Your task to perform on an android device: turn on airplane mode Image 0: 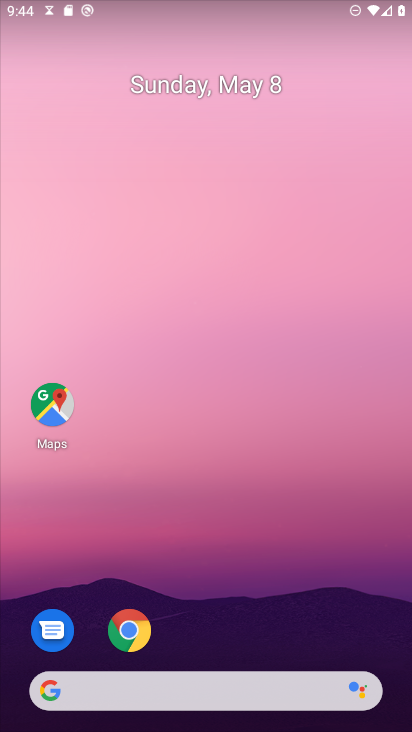
Step 0: drag from (207, 703) to (354, 217)
Your task to perform on an android device: turn on airplane mode Image 1: 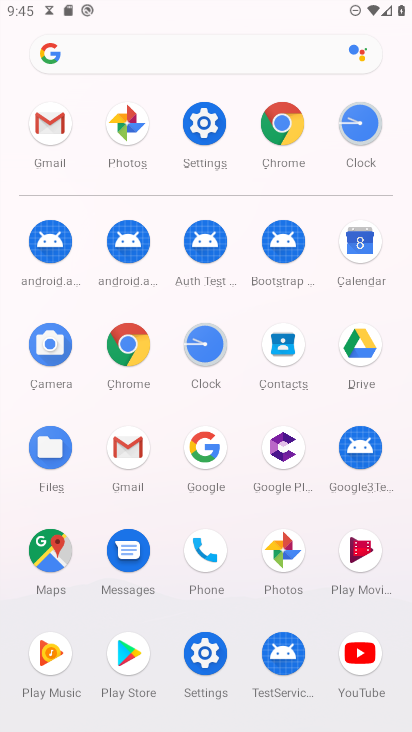
Step 1: click (199, 128)
Your task to perform on an android device: turn on airplane mode Image 2: 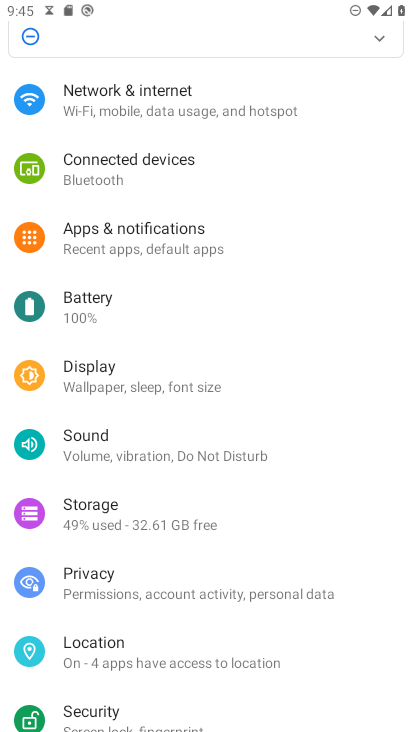
Step 2: click (199, 98)
Your task to perform on an android device: turn on airplane mode Image 3: 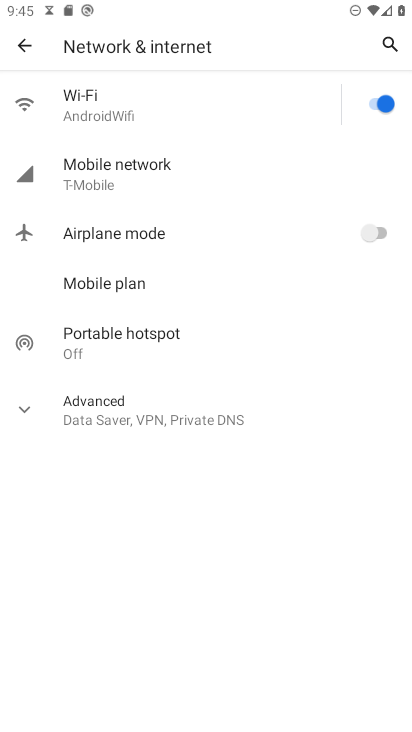
Step 3: click (380, 220)
Your task to perform on an android device: turn on airplane mode Image 4: 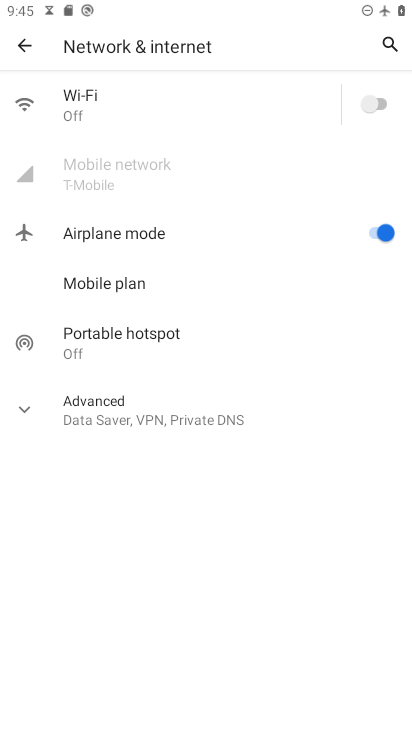
Step 4: task complete